Your task to perform on an android device: Go to Google Image 0: 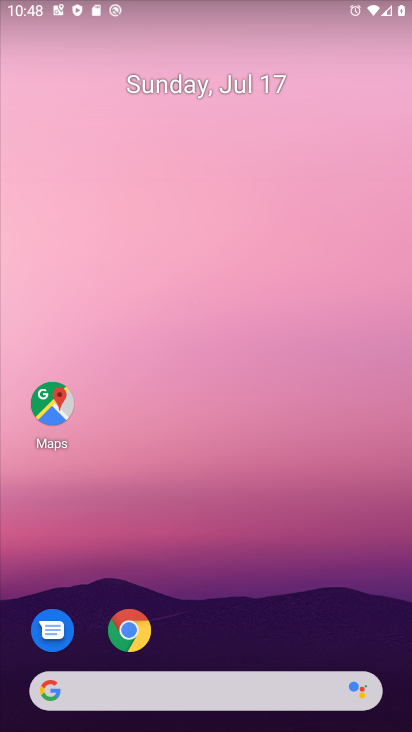
Step 0: drag from (288, 624) to (338, 140)
Your task to perform on an android device: Go to Google Image 1: 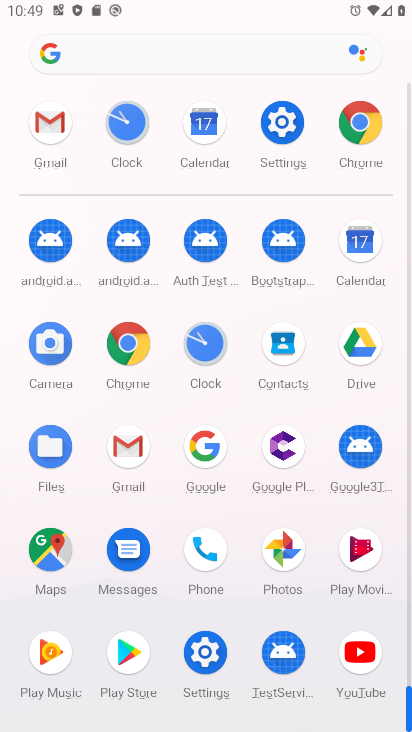
Step 1: click (206, 448)
Your task to perform on an android device: Go to Google Image 2: 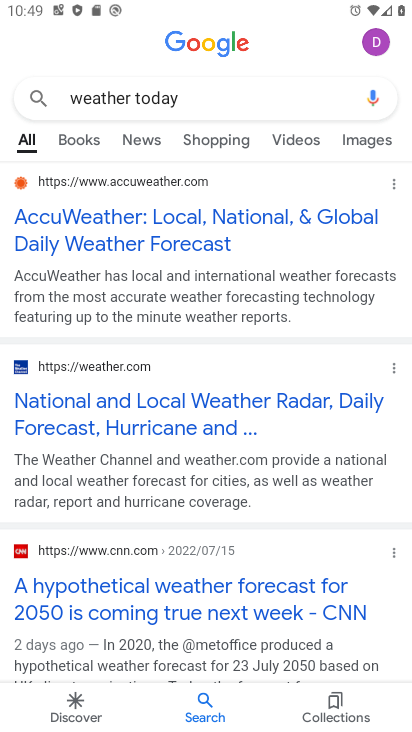
Step 2: task complete